Your task to perform on an android device: turn off location Image 0: 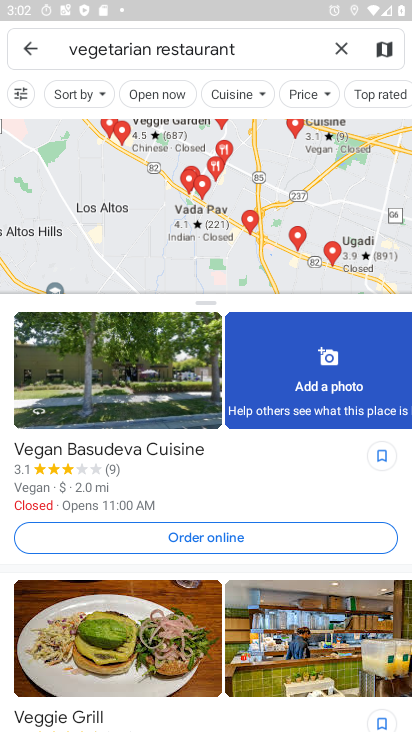
Step 0: press home button
Your task to perform on an android device: turn off location Image 1: 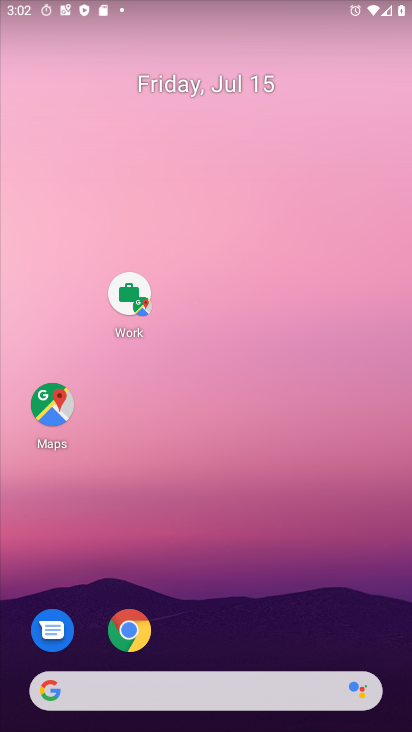
Step 1: drag from (239, 624) to (234, 229)
Your task to perform on an android device: turn off location Image 2: 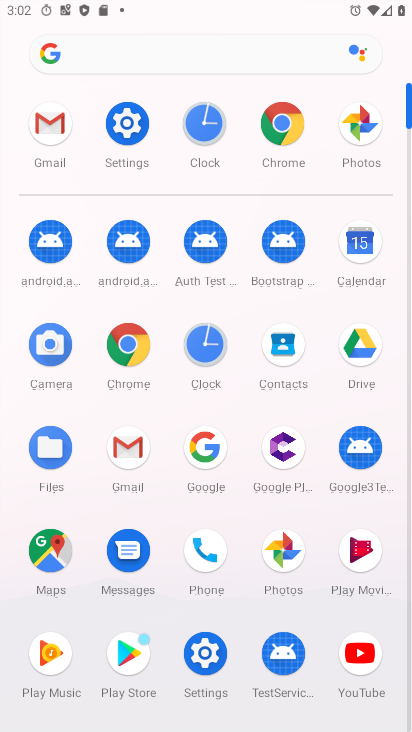
Step 2: click (133, 141)
Your task to perform on an android device: turn off location Image 3: 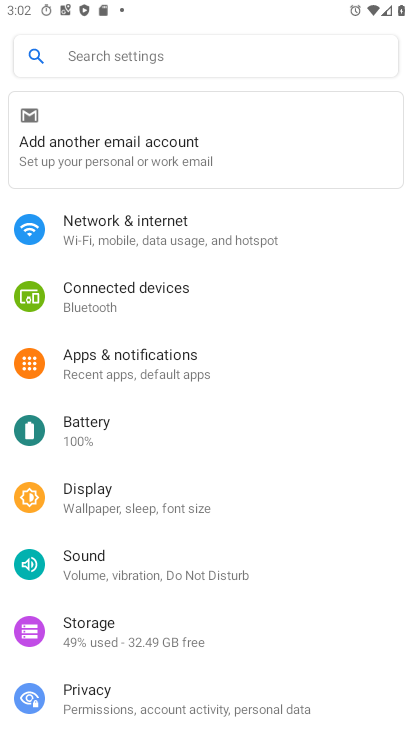
Step 3: drag from (125, 579) to (101, 320)
Your task to perform on an android device: turn off location Image 4: 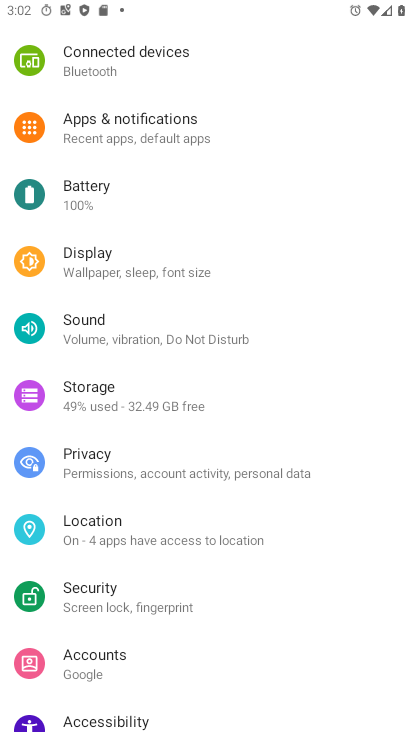
Step 4: click (117, 514)
Your task to perform on an android device: turn off location Image 5: 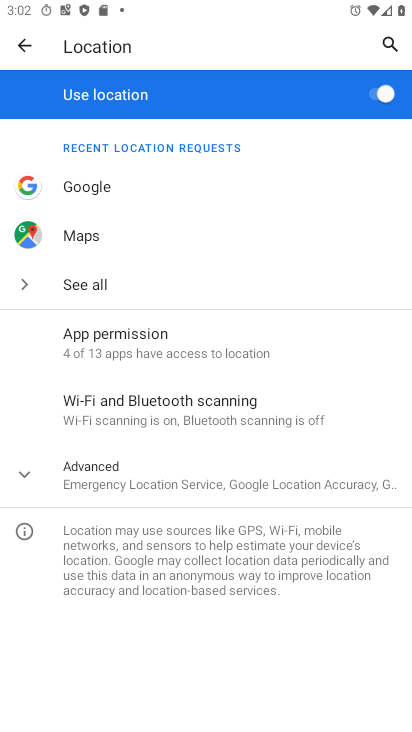
Step 5: click (370, 93)
Your task to perform on an android device: turn off location Image 6: 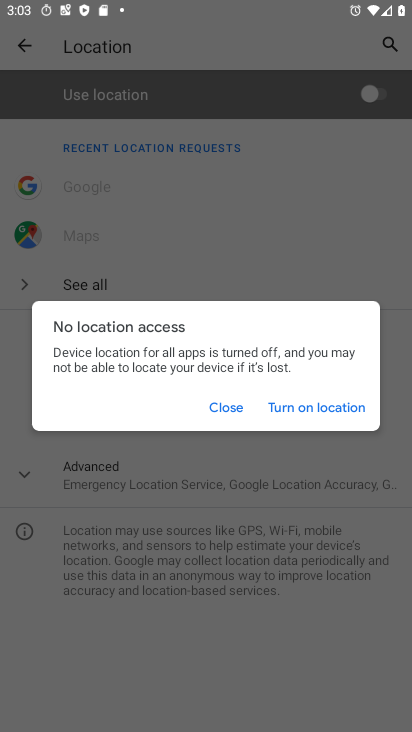
Step 6: task complete